Your task to perform on an android device: Open Google Maps and go to "Timeline" Image 0: 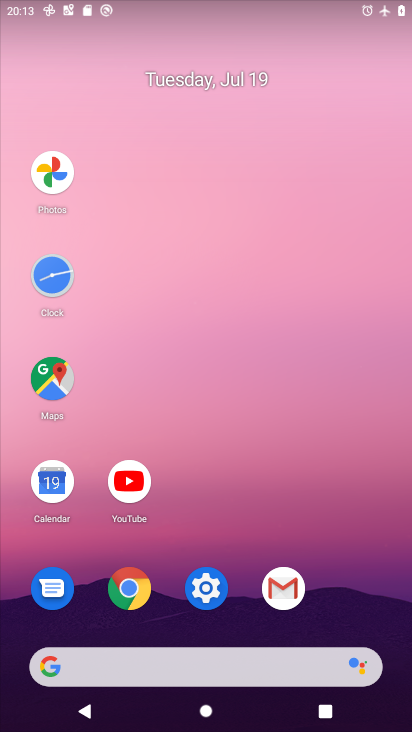
Step 0: click (45, 383)
Your task to perform on an android device: Open Google Maps and go to "Timeline" Image 1: 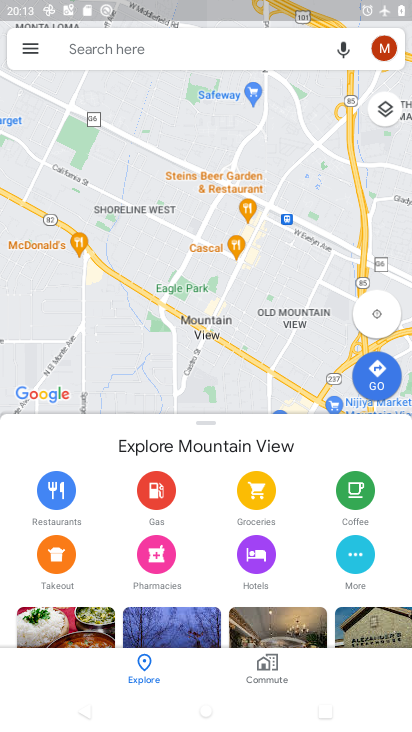
Step 1: click (26, 45)
Your task to perform on an android device: Open Google Maps and go to "Timeline" Image 2: 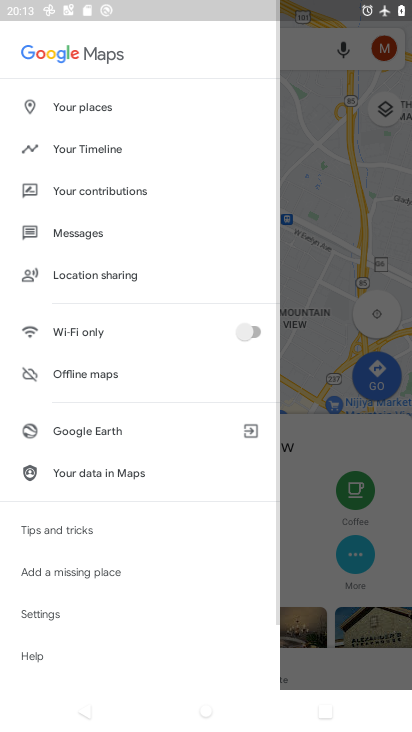
Step 2: click (97, 150)
Your task to perform on an android device: Open Google Maps and go to "Timeline" Image 3: 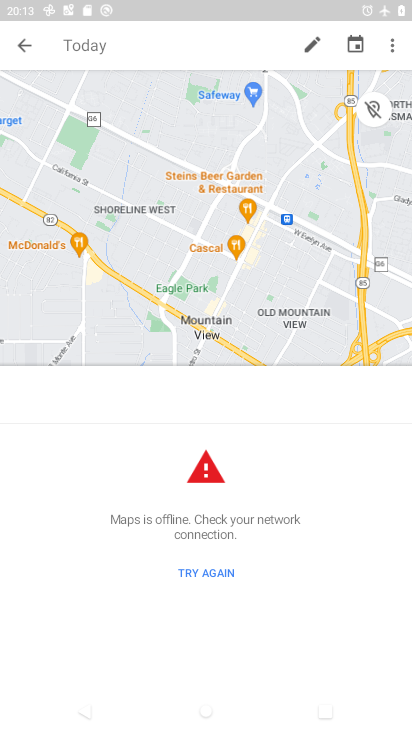
Step 3: task complete